Your task to perform on an android device: turn on data saver in the chrome app Image 0: 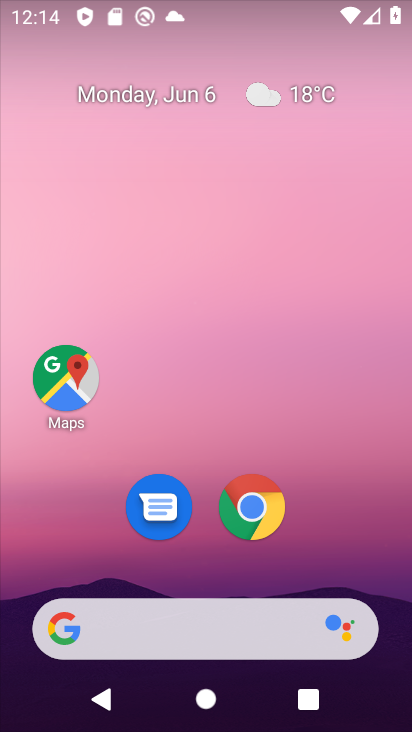
Step 0: drag from (227, 579) to (229, 89)
Your task to perform on an android device: turn on data saver in the chrome app Image 1: 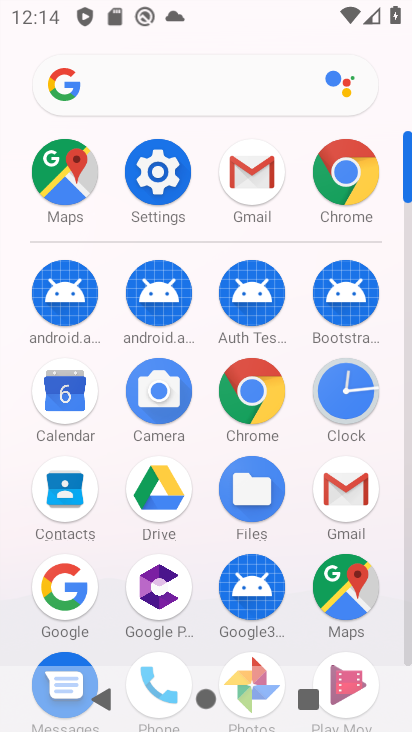
Step 1: click (262, 410)
Your task to perform on an android device: turn on data saver in the chrome app Image 2: 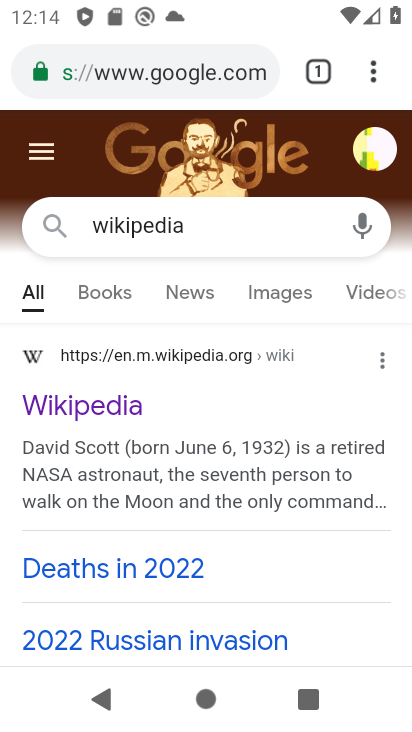
Step 2: click (368, 63)
Your task to perform on an android device: turn on data saver in the chrome app Image 3: 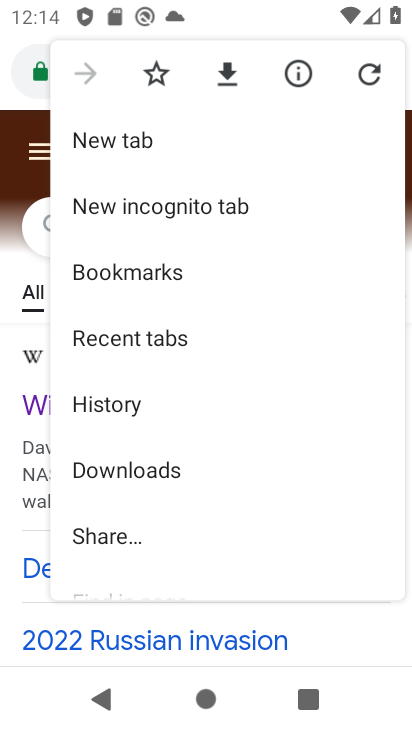
Step 3: drag from (196, 491) to (238, 141)
Your task to perform on an android device: turn on data saver in the chrome app Image 4: 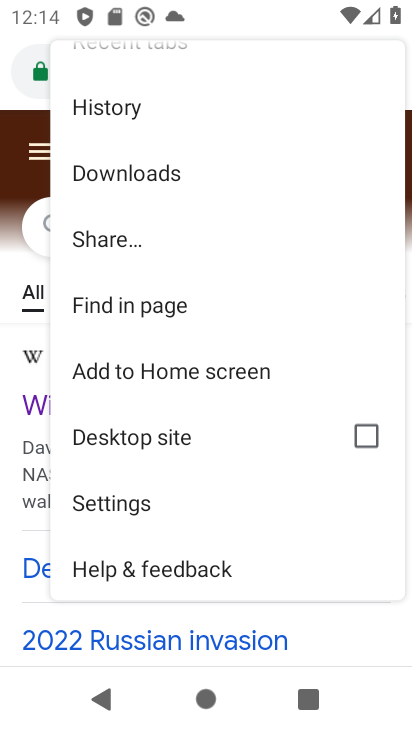
Step 4: click (137, 518)
Your task to perform on an android device: turn on data saver in the chrome app Image 5: 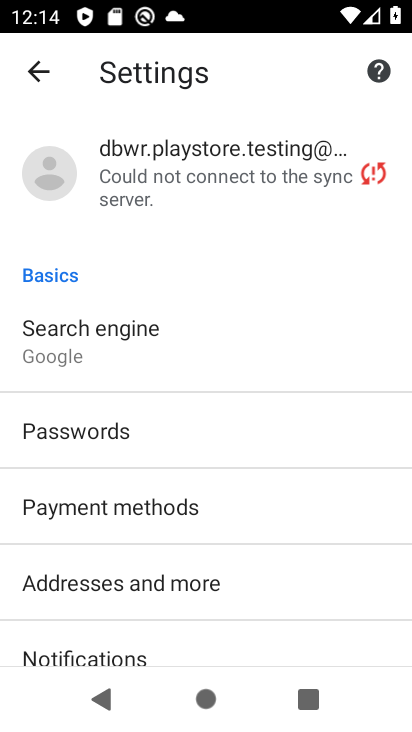
Step 5: drag from (84, 604) to (148, 262)
Your task to perform on an android device: turn on data saver in the chrome app Image 6: 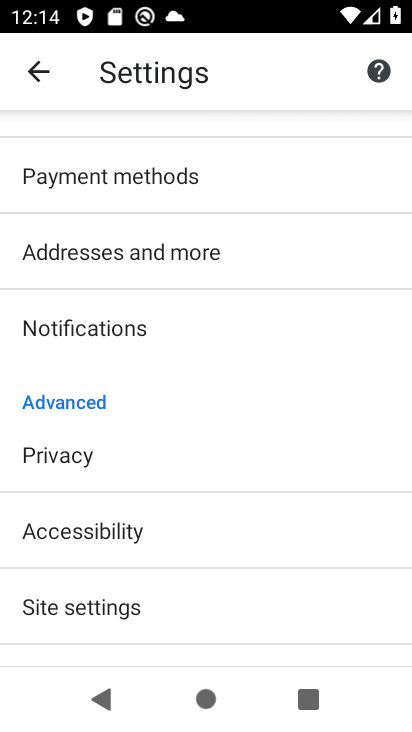
Step 6: drag from (166, 519) to (193, 361)
Your task to perform on an android device: turn on data saver in the chrome app Image 7: 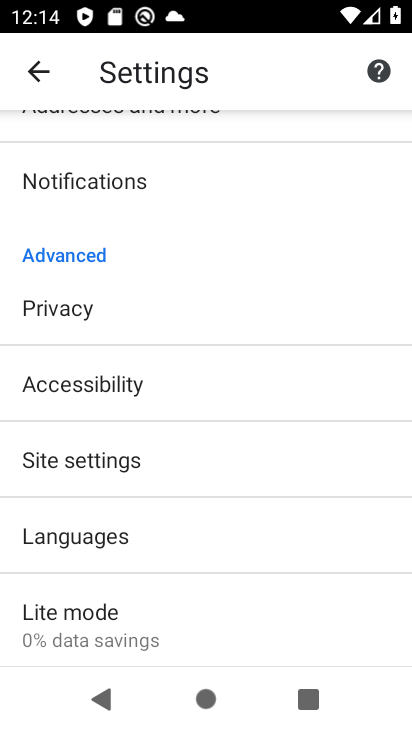
Step 7: click (108, 618)
Your task to perform on an android device: turn on data saver in the chrome app Image 8: 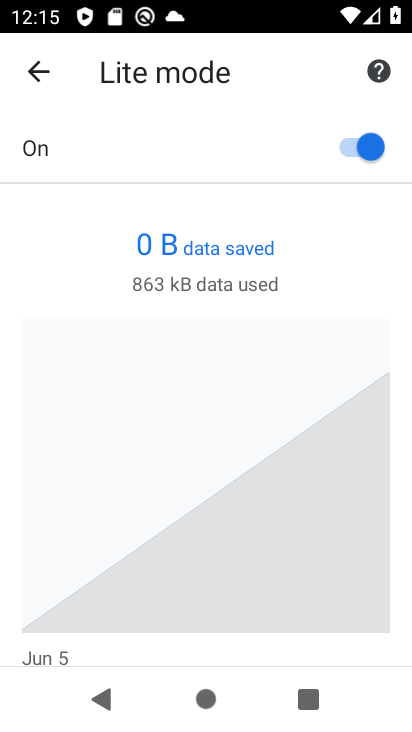
Step 8: task complete